Your task to perform on an android device: turn on showing notifications on the lock screen Image 0: 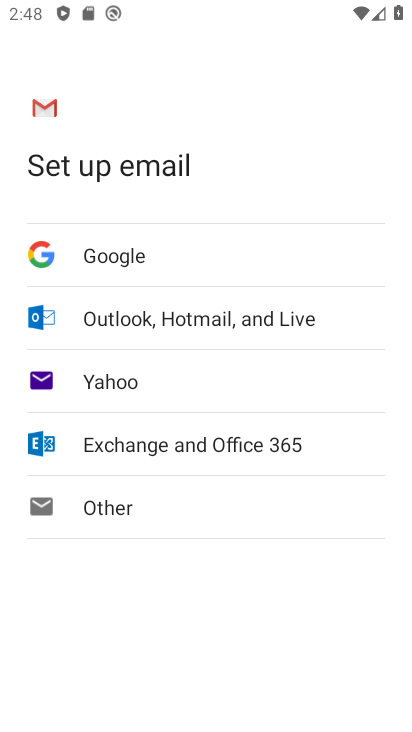
Step 0: press home button
Your task to perform on an android device: turn on showing notifications on the lock screen Image 1: 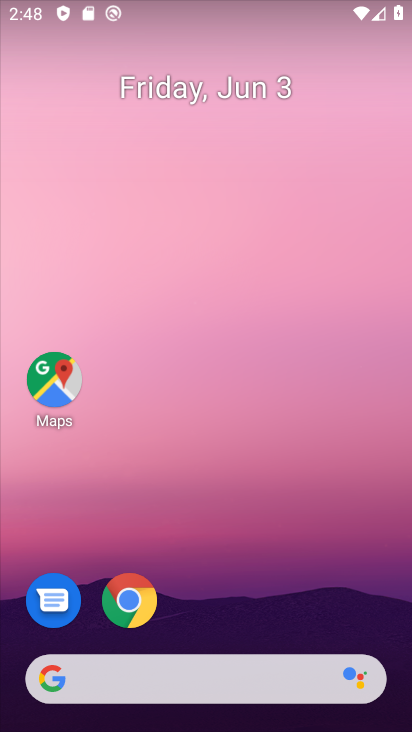
Step 1: drag from (309, 556) to (276, 202)
Your task to perform on an android device: turn on showing notifications on the lock screen Image 2: 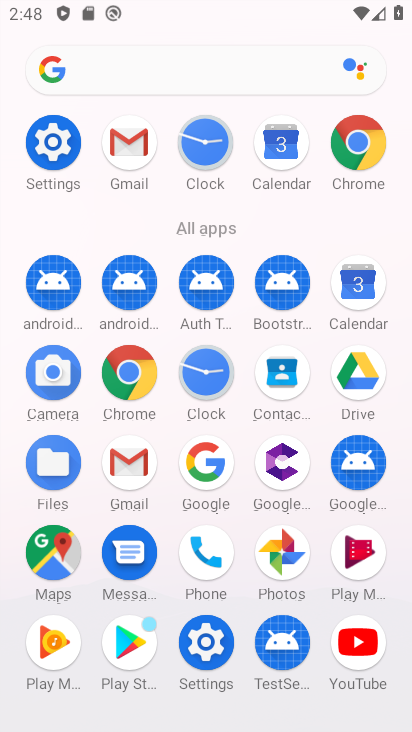
Step 2: click (33, 137)
Your task to perform on an android device: turn on showing notifications on the lock screen Image 3: 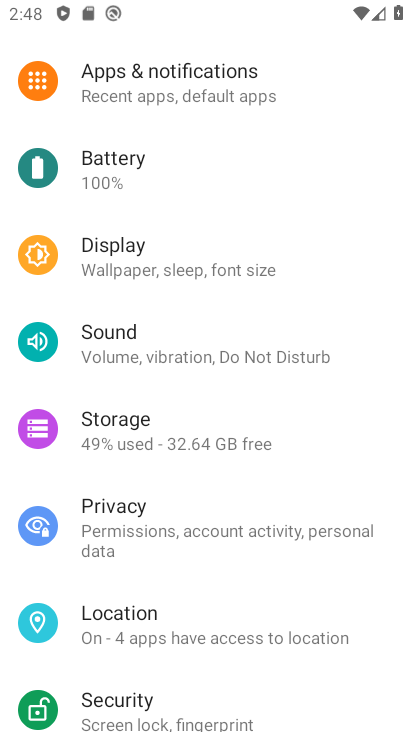
Step 3: click (139, 101)
Your task to perform on an android device: turn on showing notifications on the lock screen Image 4: 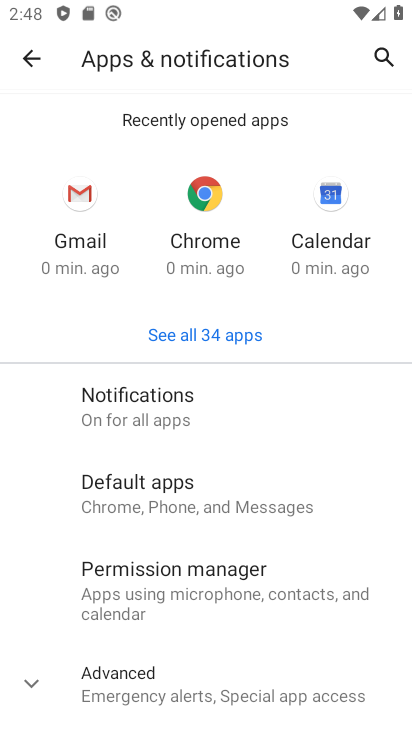
Step 4: click (151, 429)
Your task to perform on an android device: turn on showing notifications on the lock screen Image 5: 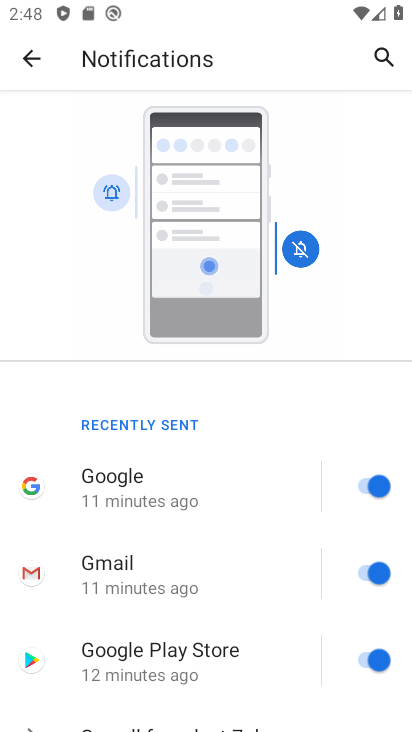
Step 5: drag from (193, 572) to (199, 266)
Your task to perform on an android device: turn on showing notifications on the lock screen Image 6: 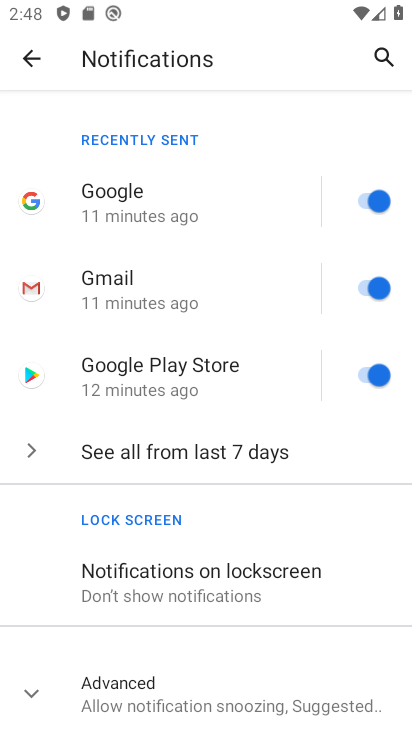
Step 6: click (215, 593)
Your task to perform on an android device: turn on showing notifications on the lock screen Image 7: 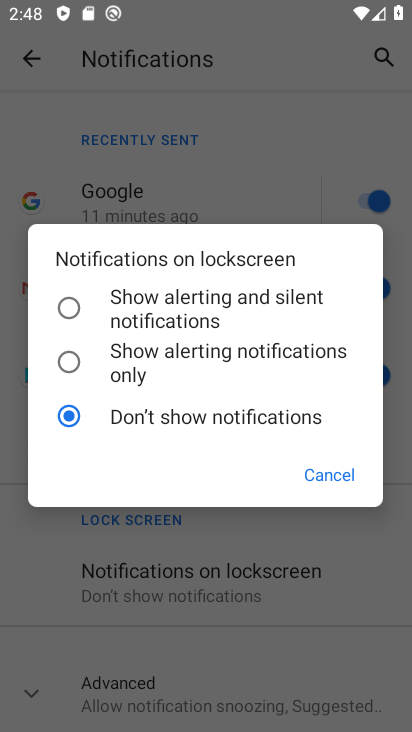
Step 7: click (229, 297)
Your task to perform on an android device: turn on showing notifications on the lock screen Image 8: 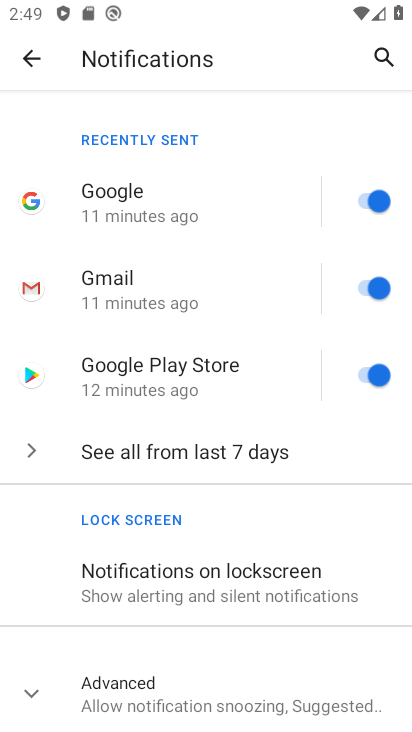
Step 8: task complete